Your task to perform on an android device: snooze an email in the gmail app Image 0: 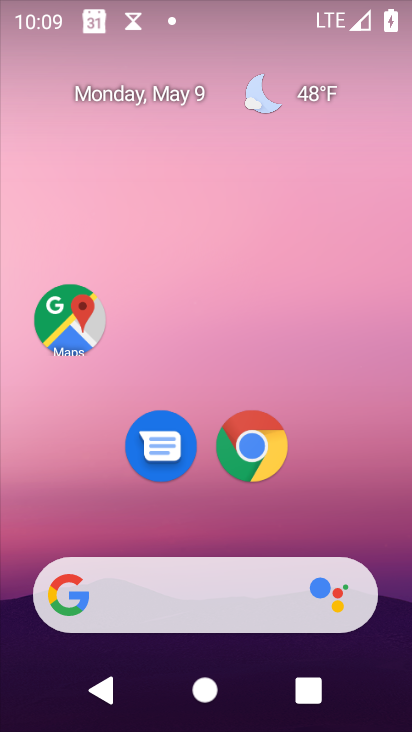
Step 0: drag from (281, 508) to (275, 38)
Your task to perform on an android device: snooze an email in the gmail app Image 1: 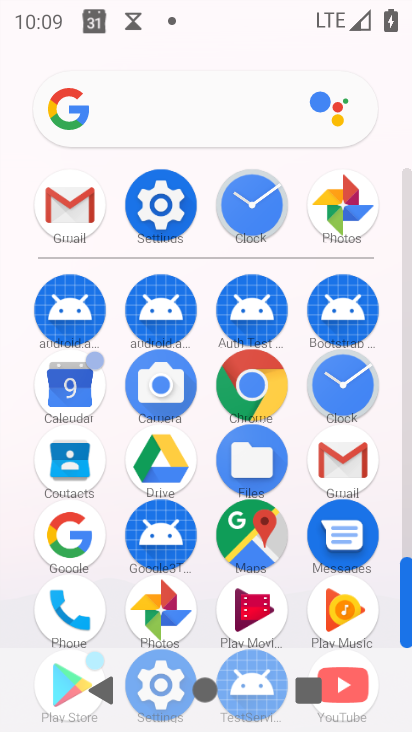
Step 1: click (68, 199)
Your task to perform on an android device: snooze an email in the gmail app Image 2: 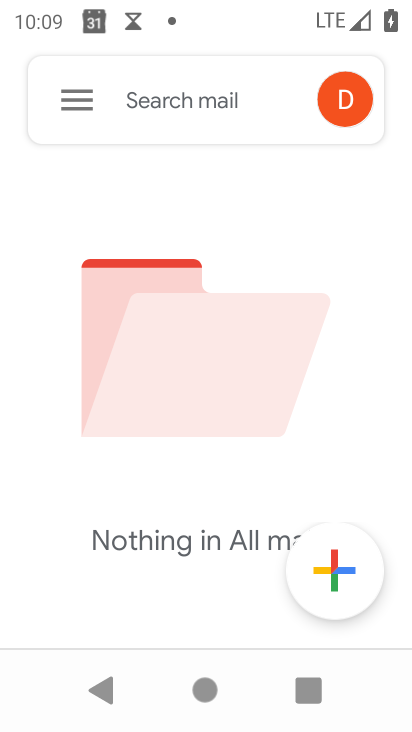
Step 2: click (69, 108)
Your task to perform on an android device: snooze an email in the gmail app Image 3: 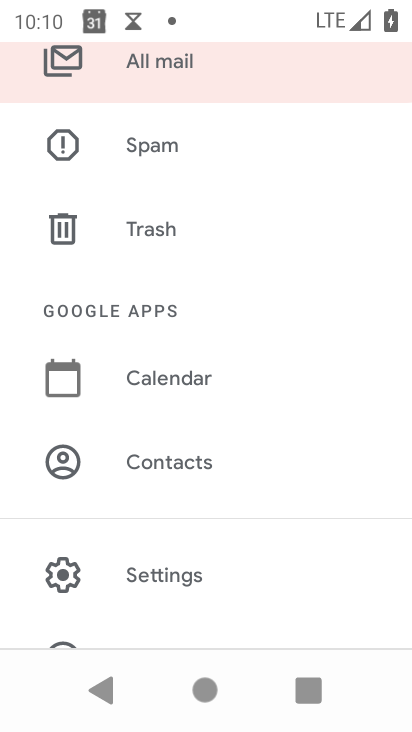
Step 3: drag from (207, 163) to (142, 494)
Your task to perform on an android device: snooze an email in the gmail app Image 4: 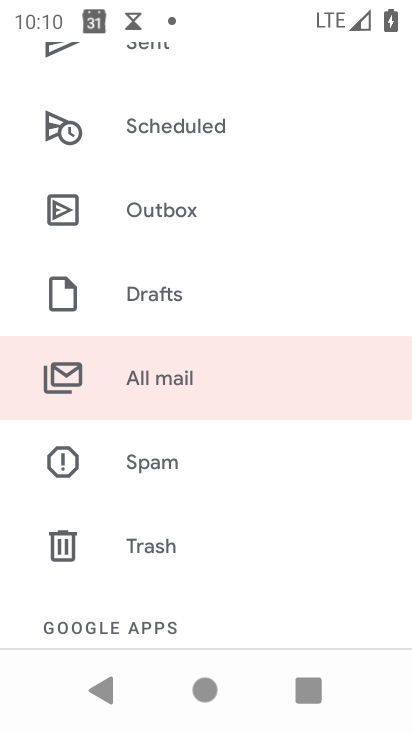
Step 4: drag from (208, 198) to (132, 565)
Your task to perform on an android device: snooze an email in the gmail app Image 5: 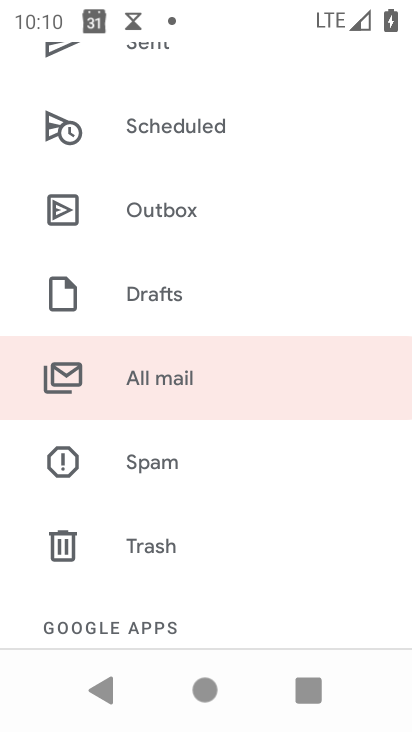
Step 5: click (199, 377)
Your task to perform on an android device: snooze an email in the gmail app Image 6: 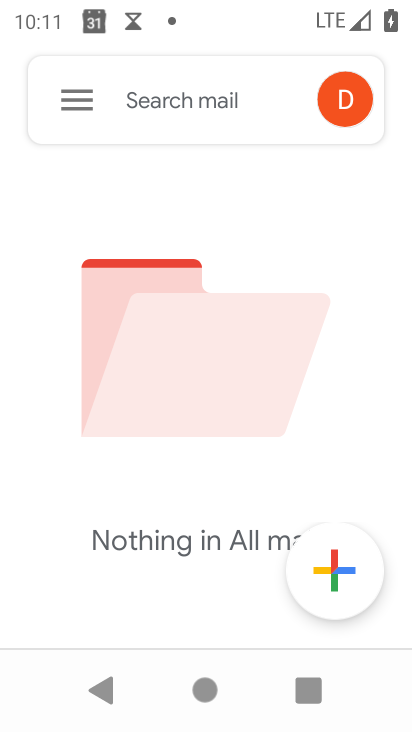
Step 6: task complete